Your task to perform on an android device: change notifications settings Image 0: 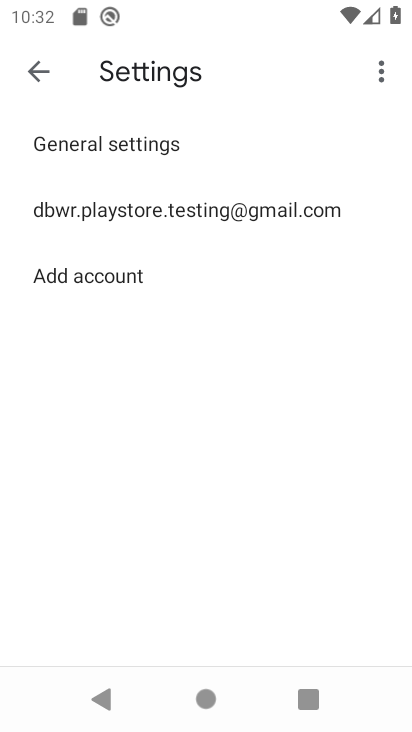
Step 0: press home button
Your task to perform on an android device: change notifications settings Image 1: 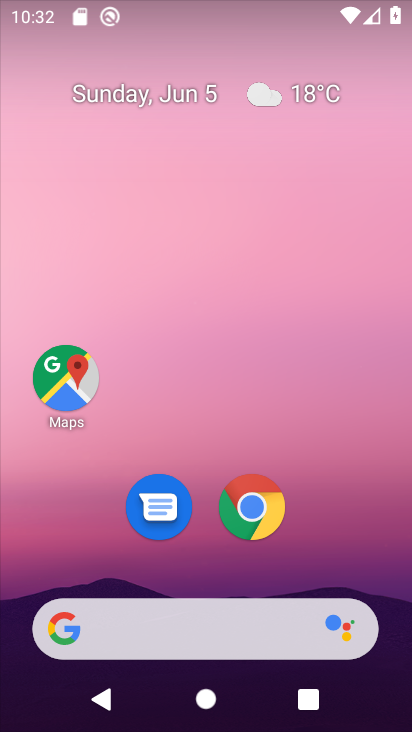
Step 1: drag from (201, 545) to (88, 3)
Your task to perform on an android device: change notifications settings Image 2: 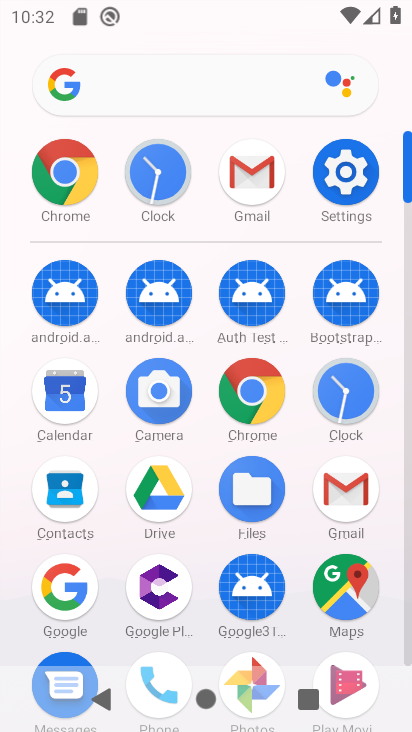
Step 2: click (352, 181)
Your task to perform on an android device: change notifications settings Image 3: 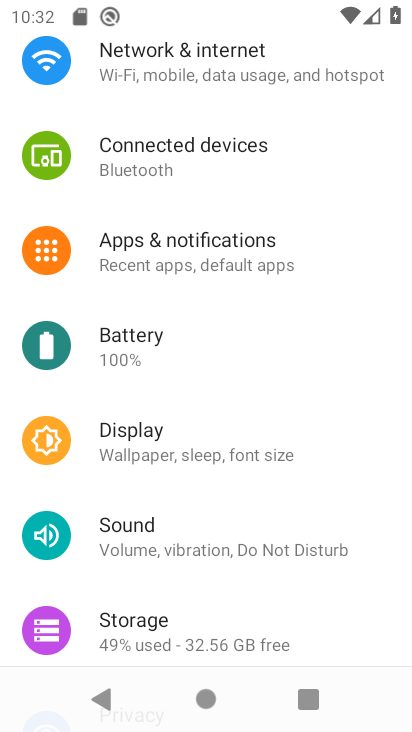
Step 3: click (202, 248)
Your task to perform on an android device: change notifications settings Image 4: 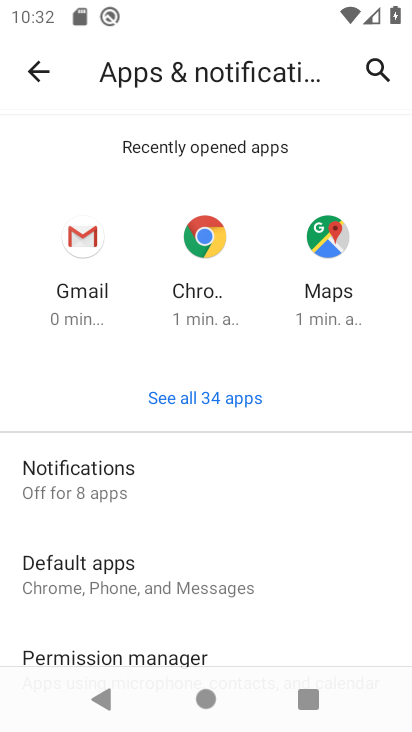
Step 4: click (119, 482)
Your task to perform on an android device: change notifications settings Image 5: 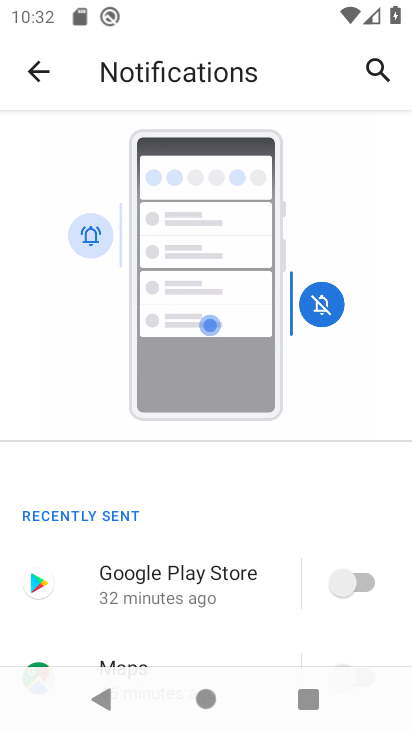
Step 5: drag from (135, 569) to (168, 183)
Your task to perform on an android device: change notifications settings Image 6: 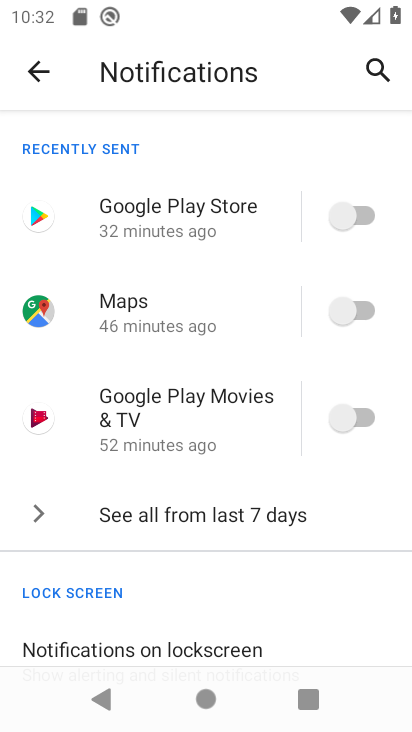
Step 6: drag from (148, 569) to (202, 199)
Your task to perform on an android device: change notifications settings Image 7: 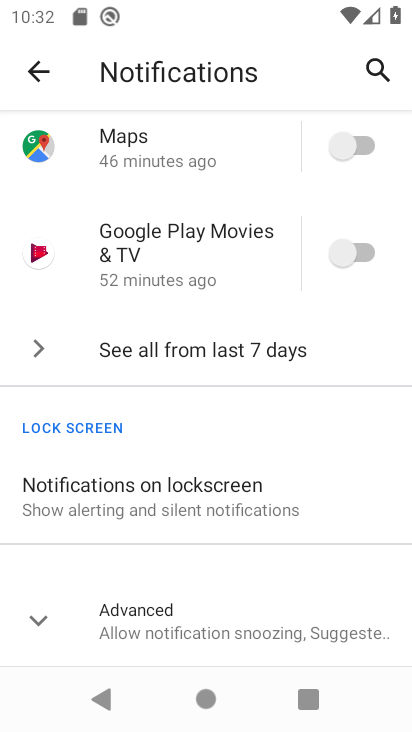
Step 7: click (136, 354)
Your task to perform on an android device: change notifications settings Image 8: 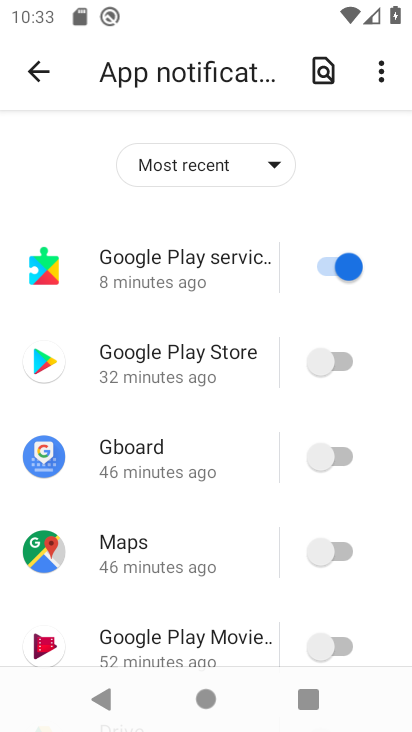
Step 8: click (331, 352)
Your task to perform on an android device: change notifications settings Image 9: 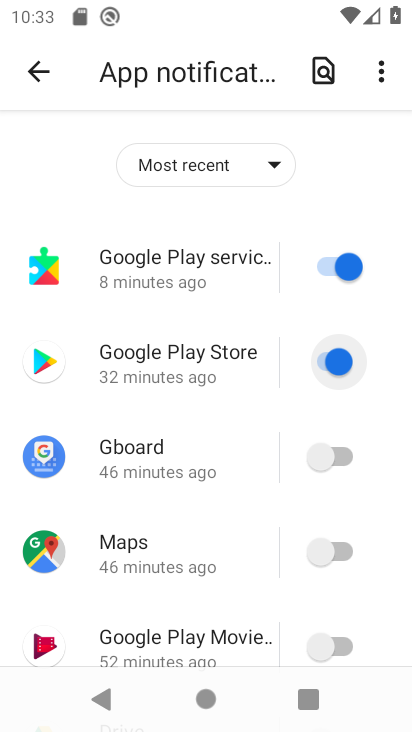
Step 9: click (346, 434)
Your task to perform on an android device: change notifications settings Image 10: 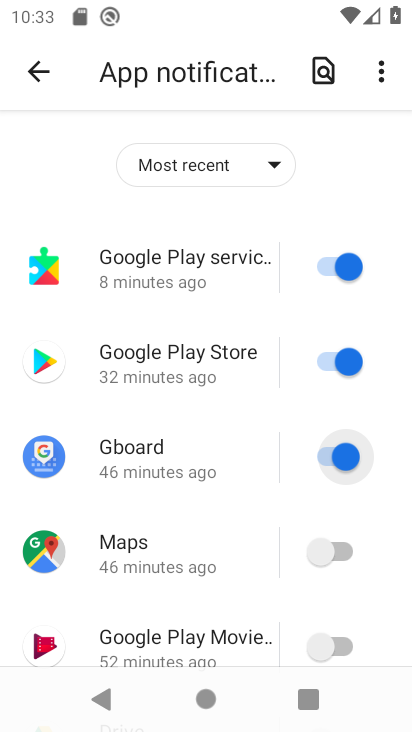
Step 10: click (364, 545)
Your task to perform on an android device: change notifications settings Image 11: 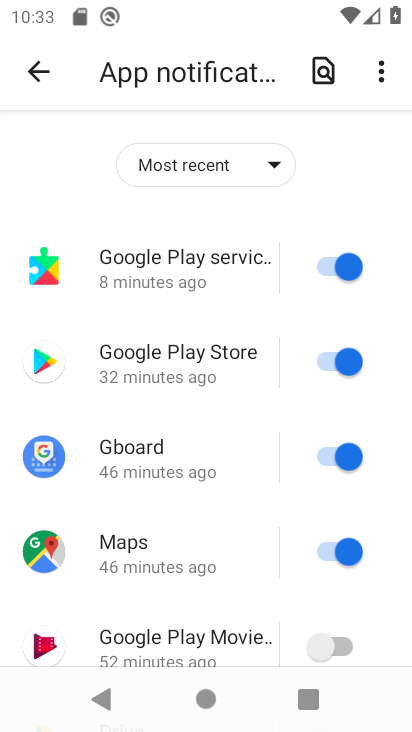
Step 11: drag from (354, 578) to (368, 20)
Your task to perform on an android device: change notifications settings Image 12: 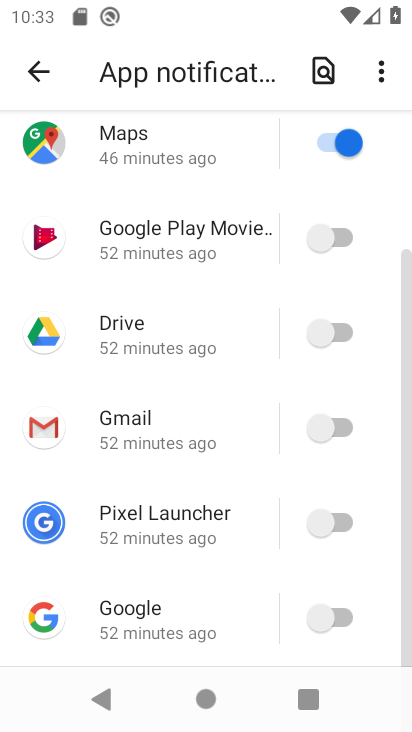
Step 12: click (339, 238)
Your task to perform on an android device: change notifications settings Image 13: 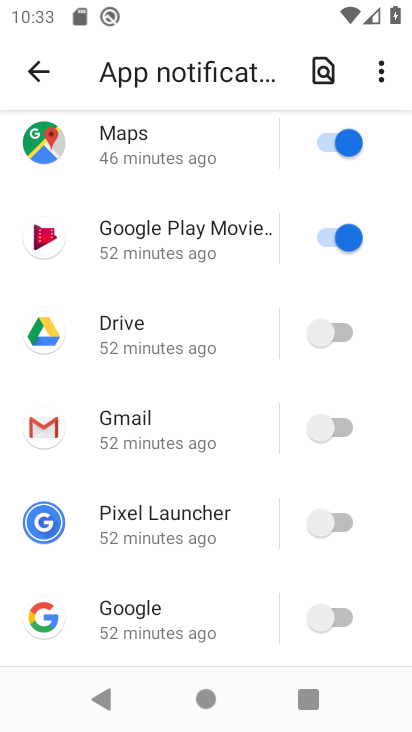
Step 13: click (358, 322)
Your task to perform on an android device: change notifications settings Image 14: 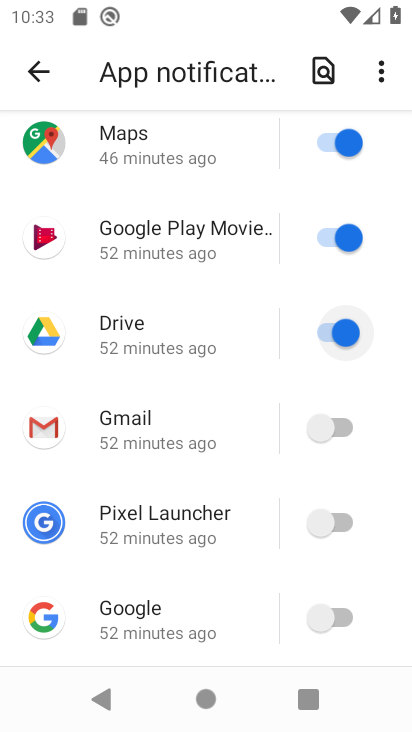
Step 14: click (351, 415)
Your task to perform on an android device: change notifications settings Image 15: 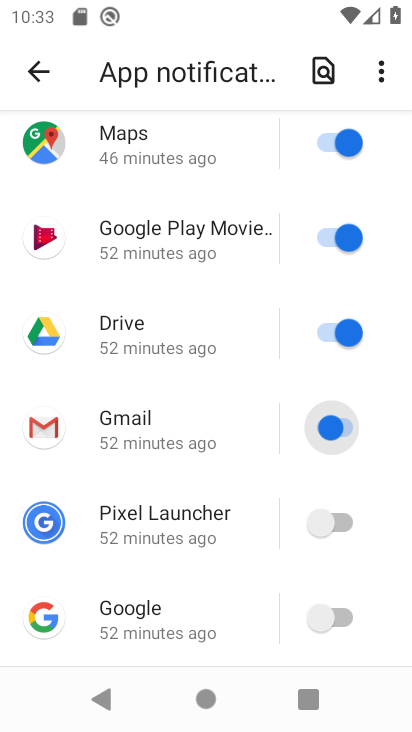
Step 15: click (346, 506)
Your task to perform on an android device: change notifications settings Image 16: 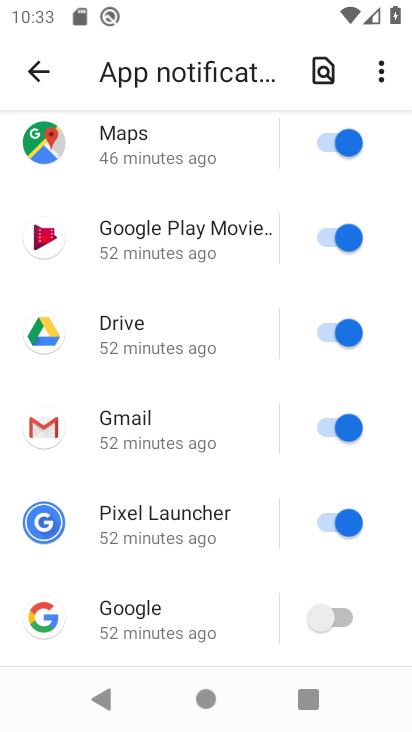
Step 16: click (341, 607)
Your task to perform on an android device: change notifications settings Image 17: 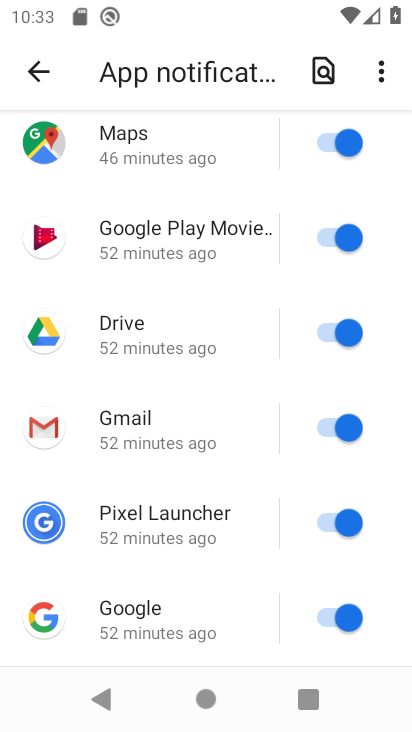
Step 17: task complete